Your task to perform on an android device: What's on my calendar tomorrow? Image 0: 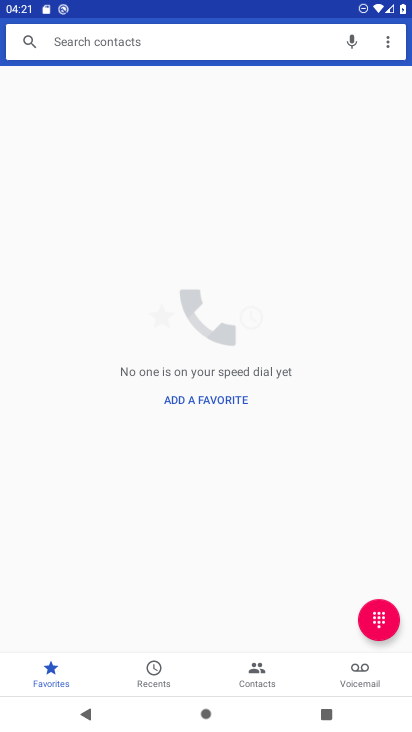
Step 0: press home button
Your task to perform on an android device: What's on my calendar tomorrow? Image 1: 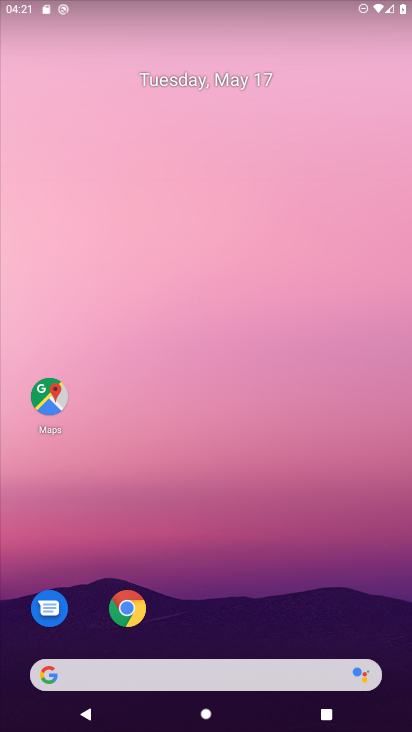
Step 1: drag from (205, 514) to (221, 286)
Your task to perform on an android device: What's on my calendar tomorrow? Image 2: 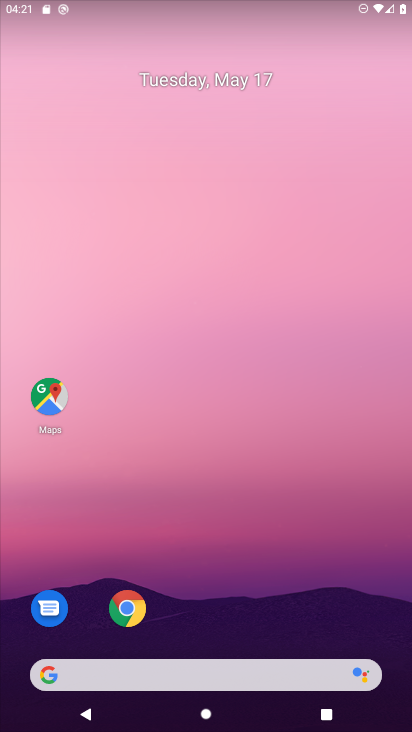
Step 2: drag from (229, 658) to (230, 333)
Your task to perform on an android device: What's on my calendar tomorrow? Image 3: 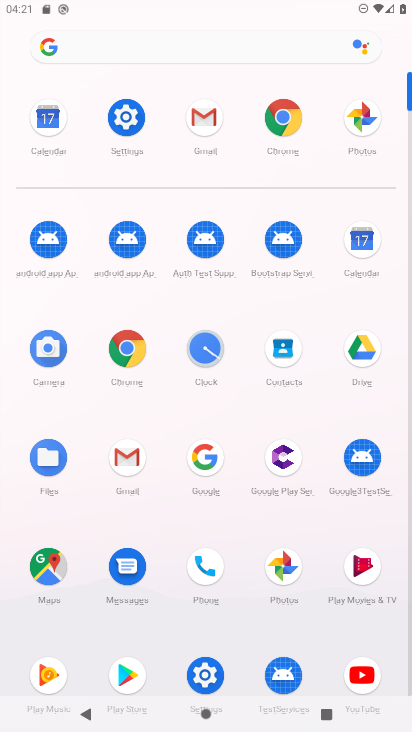
Step 3: click (367, 242)
Your task to perform on an android device: What's on my calendar tomorrow? Image 4: 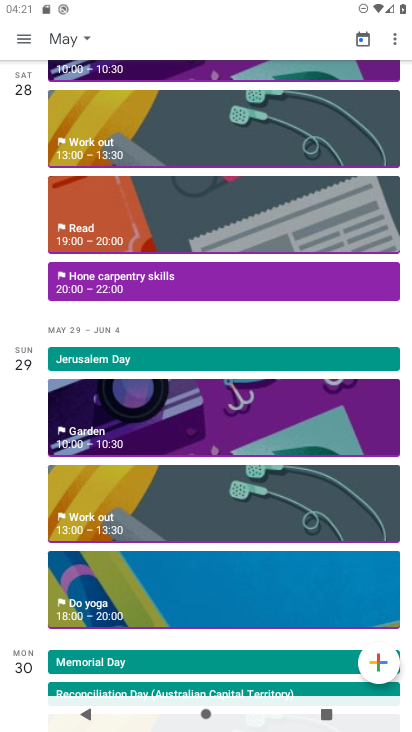
Step 4: drag from (129, 92) to (158, 554)
Your task to perform on an android device: What's on my calendar tomorrow? Image 5: 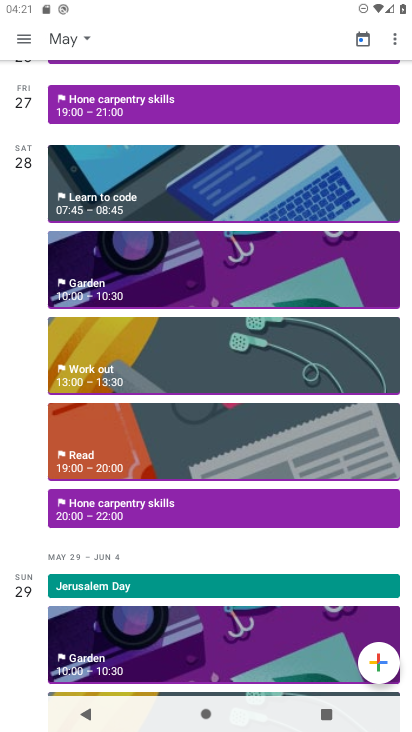
Step 5: click (73, 40)
Your task to perform on an android device: What's on my calendar tomorrow? Image 6: 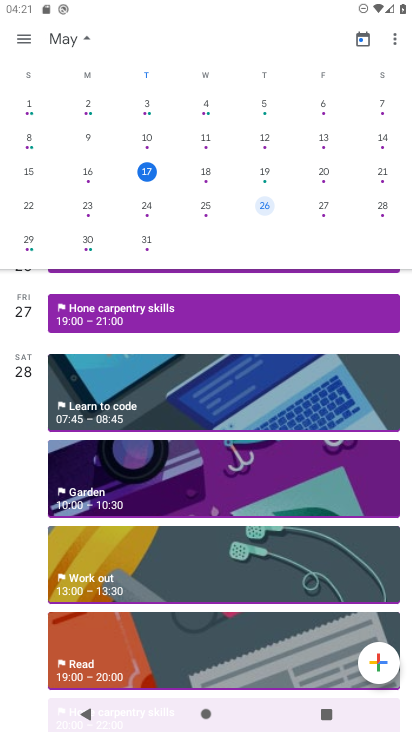
Step 6: click (208, 174)
Your task to perform on an android device: What's on my calendar tomorrow? Image 7: 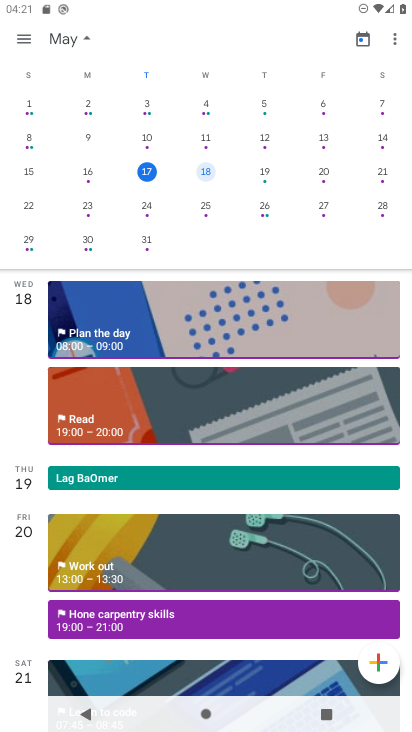
Step 7: click (150, 329)
Your task to perform on an android device: What's on my calendar tomorrow? Image 8: 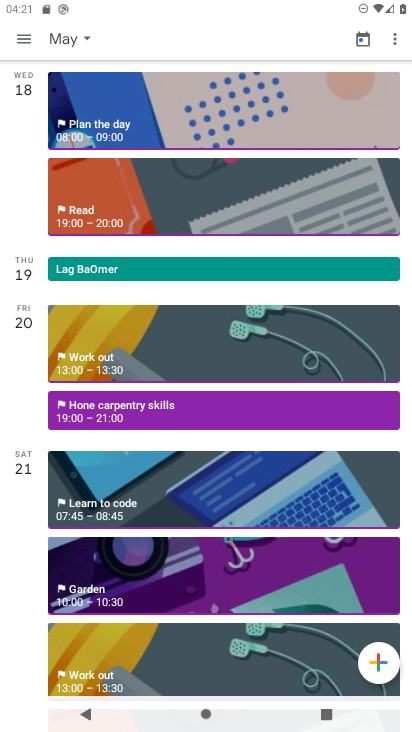
Step 8: click (106, 124)
Your task to perform on an android device: What's on my calendar tomorrow? Image 9: 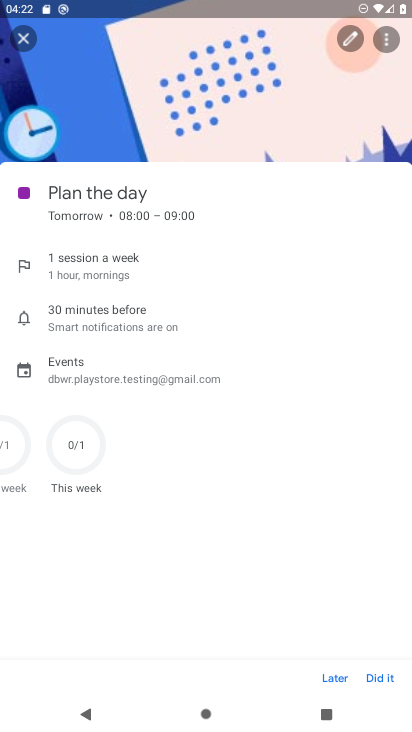
Step 9: task complete